Your task to perform on an android device: Open settings on Google Maps Image 0: 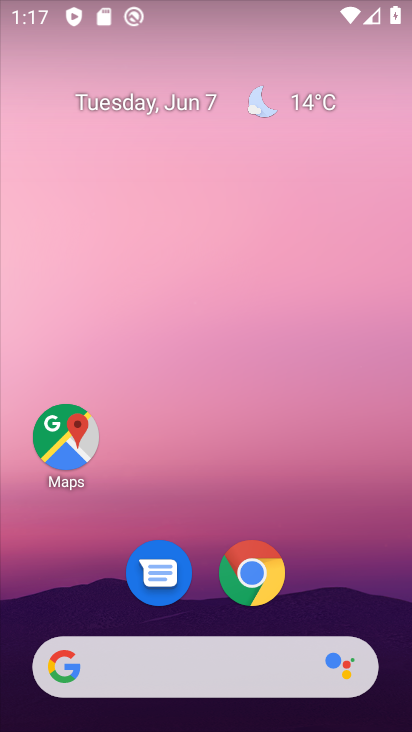
Step 0: press home button
Your task to perform on an android device: Open settings on Google Maps Image 1: 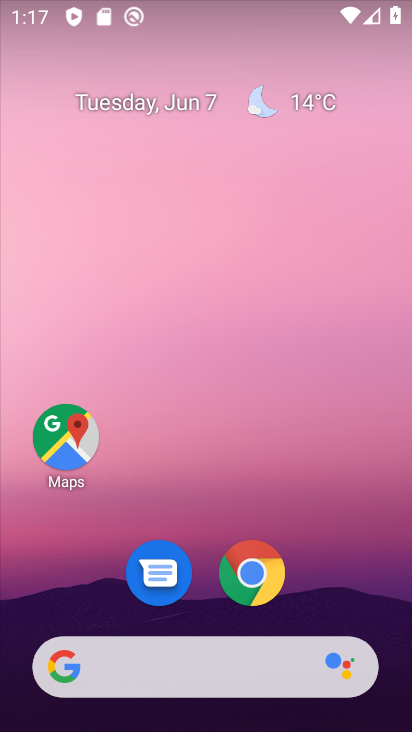
Step 1: click (68, 433)
Your task to perform on an android device: Open settings on Google Maps Image 2: 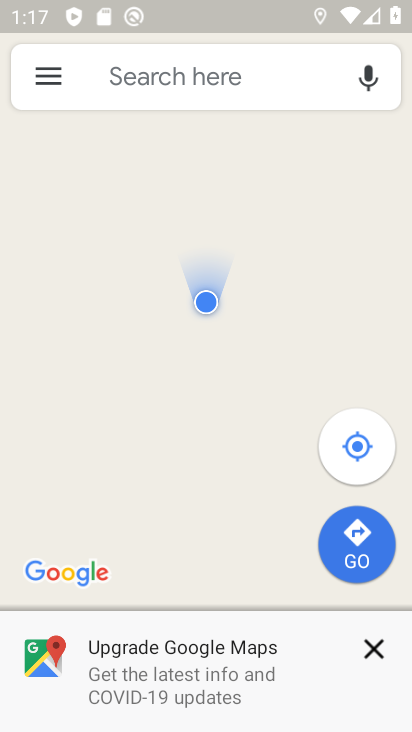
Step 2: click (49, 66)
Your task to perform on an android device: Open settings on Google Maps Image 3: 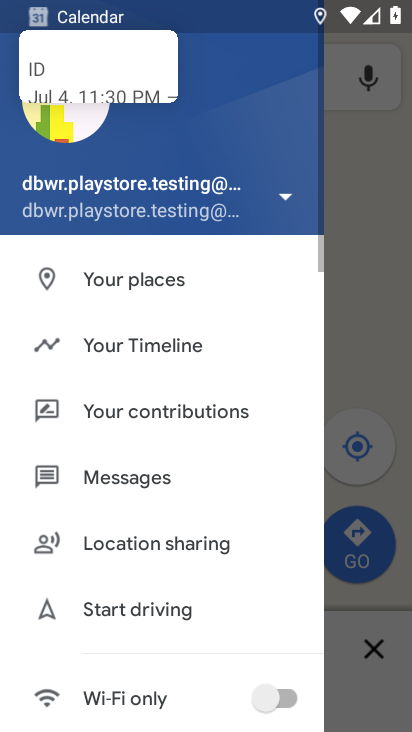
Step 3: drag from (141, 653) to (184, 101)
Your task to perform on an android device: Open settings on Google Maps Image 4: 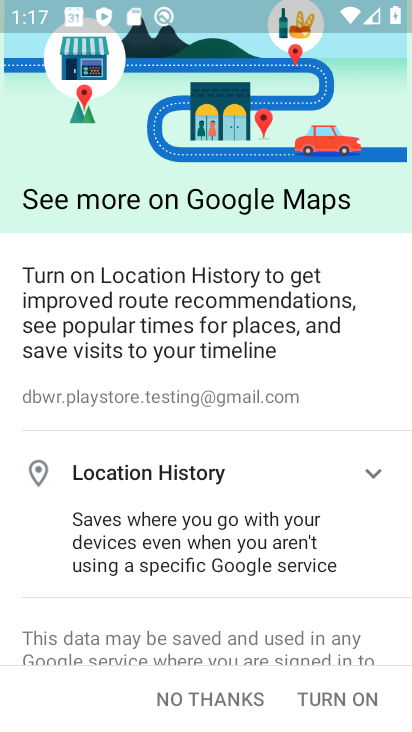
Step 4: click (335, 694)
Your task to perform on an android device: Open settings on Google Maps Image 5: 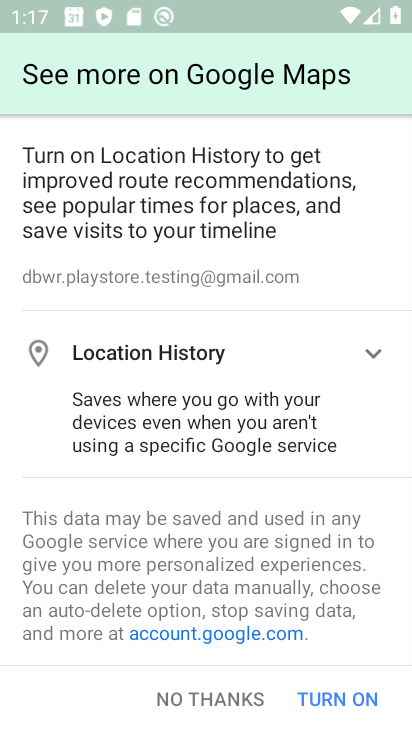
Step 5: click (335, 694)
Your task to perform on an android device: Open settings on Google Maps Image 6: 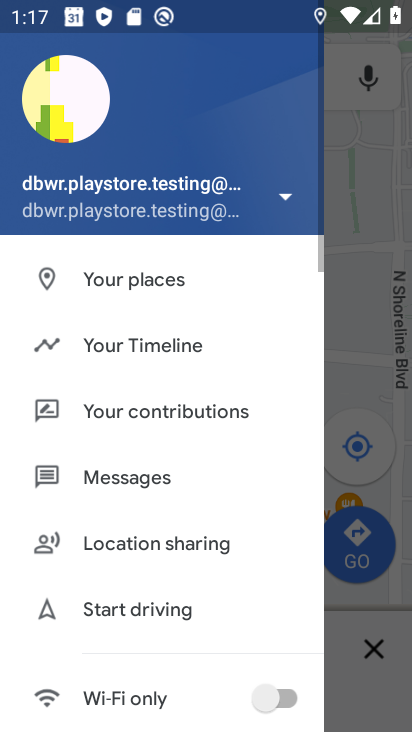
Step 6: drag from (156, 652) to (176, 6)
Your task to perform on an android device: Open settings on Google Maps Image 7: 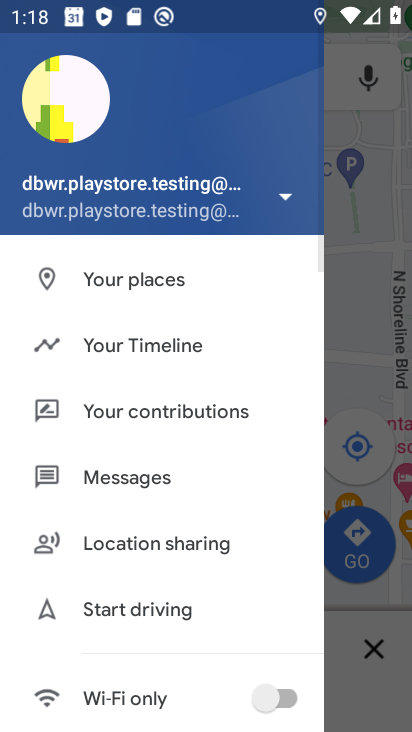
Step 7: drag from (179, 597) to (194, 105)
Your task to perform on an android device: Open settings on Google Maps Image 8: 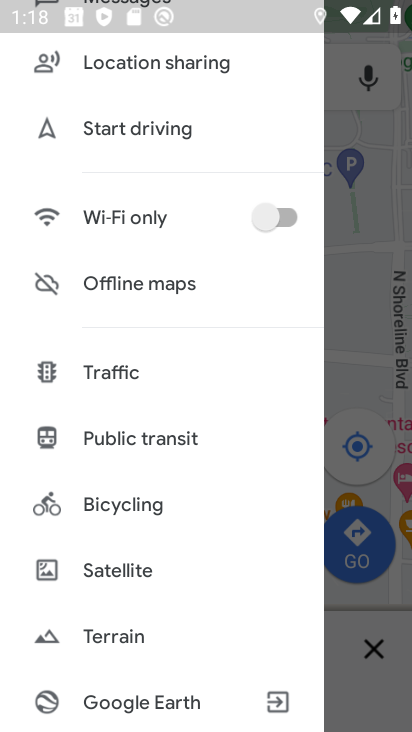
Step 8: drag from (173, 659) to (176, 55)
Your task to perform on an android device: Open settings on Google Maps Image 9: 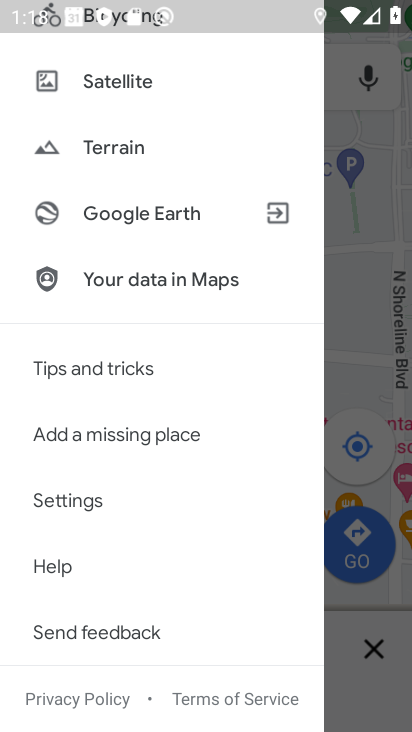
Step 9: click (110, 495)
Your task to perform on an android device: Open settings on Google Maps Image 10: 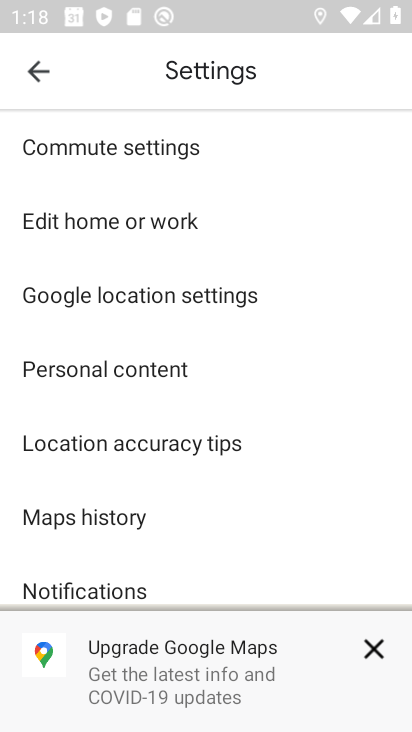
Step 10: click (367, 645)
Your task to perform on an android device: Open settings on Google Maps Image 11: 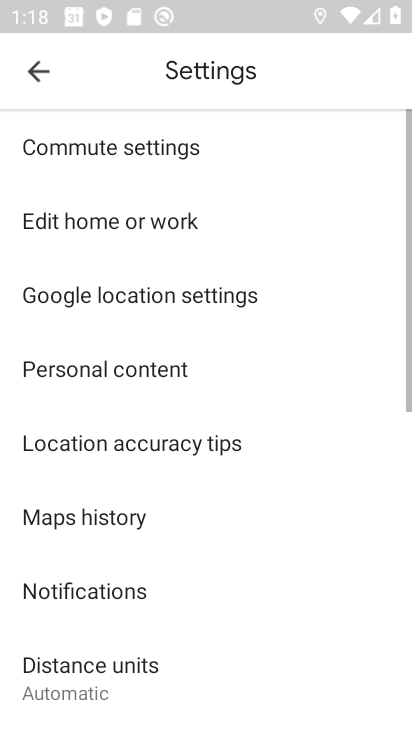
Step 11: task complete